Your task to perform on an android device: open device folders in google photos Image 0: 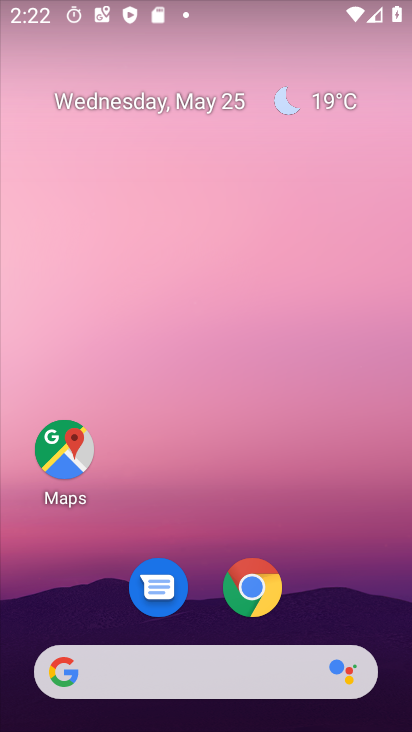
Step 0: drag from (213, 551) to (245, 200)
Your task to perform on an android device: open device folders in google photos Image 1: 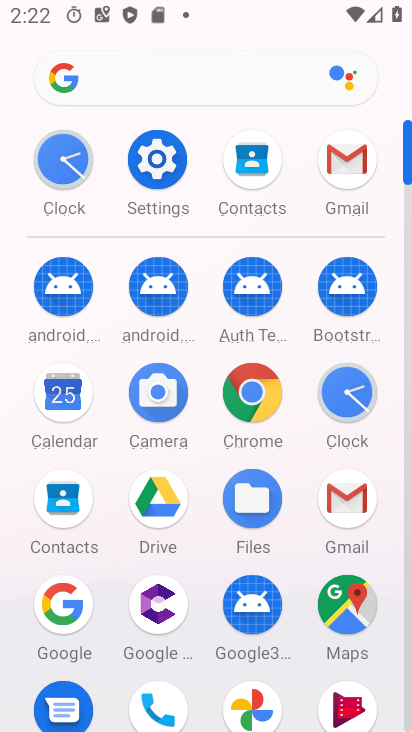
Step 1: drag from (202, 623) to (204, 231)
Your task to perform on an android device: open device folders in google photos Image 2: 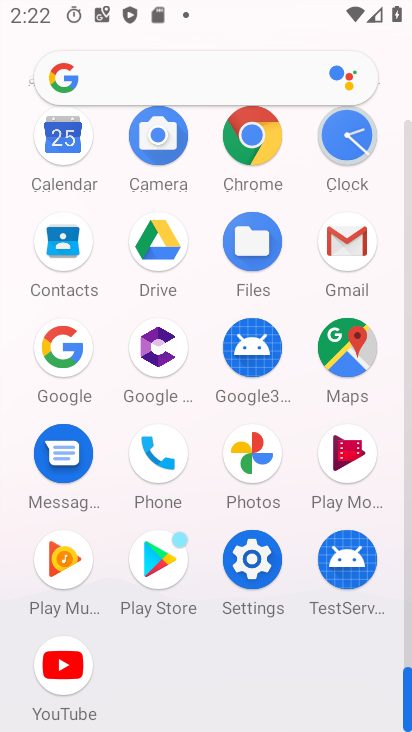
Step 2: click (236, 456)
Your task to perform on an android device: open device folders in google photos Image 3: 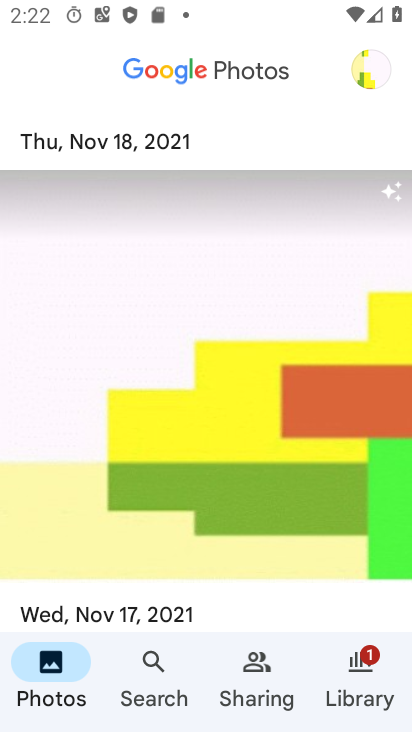
Step 3: click (361, 65)
Your task to perform on an android device: open device folders in google photos Image 4: 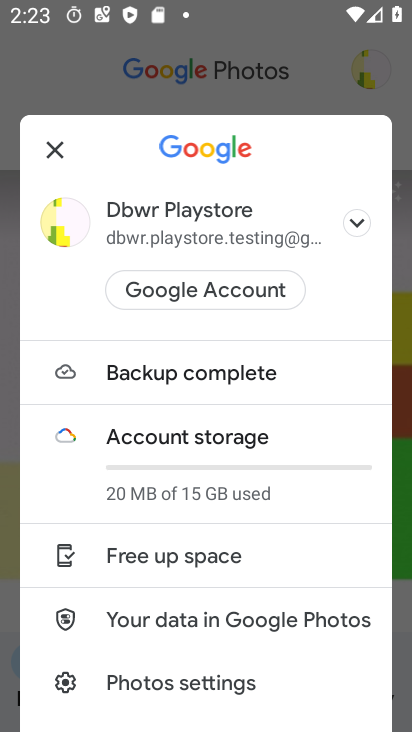
Step 4: task complete